Your task to perform on an android device: Go to Wikipedia Image 0: 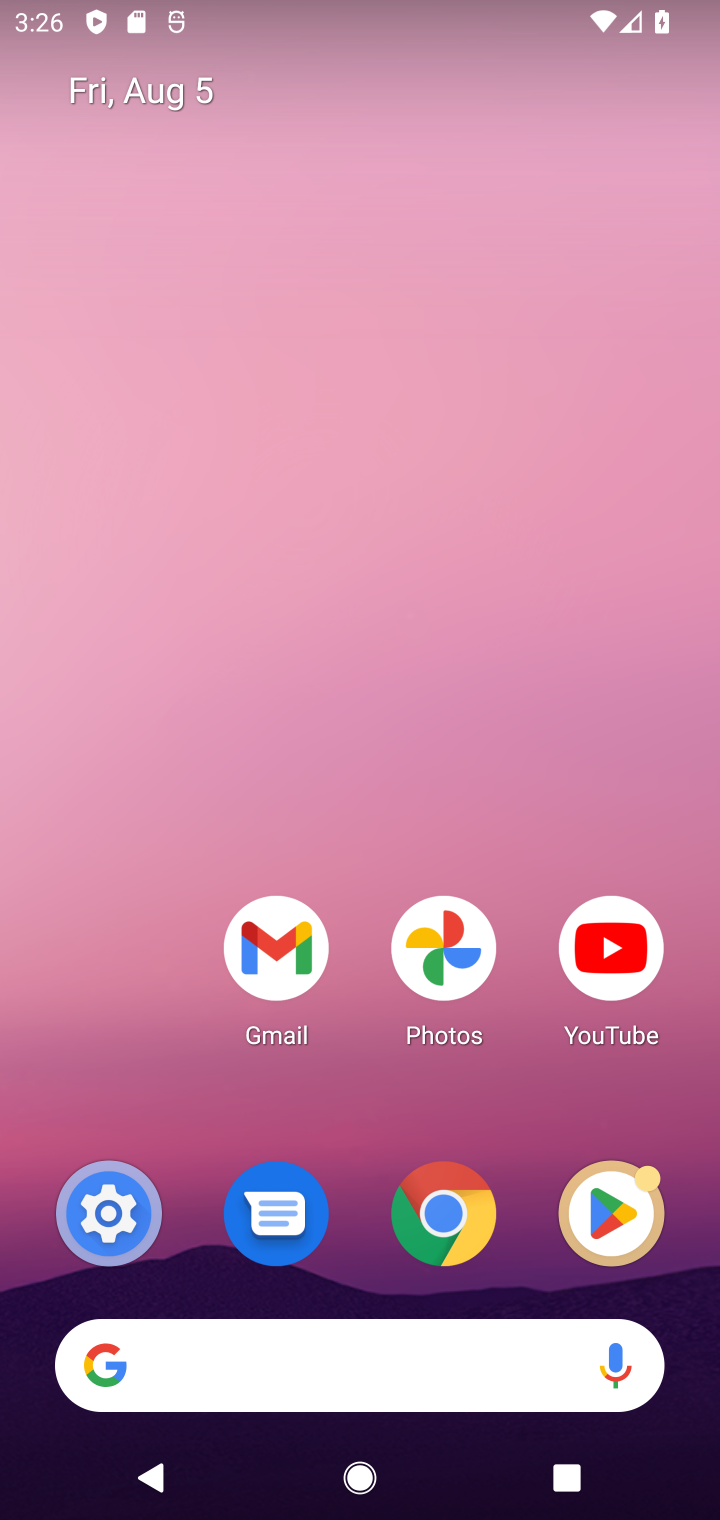
Step 0: click (77, 101)
Your task to perform on an android device: Go to Wikipedia Image 1: 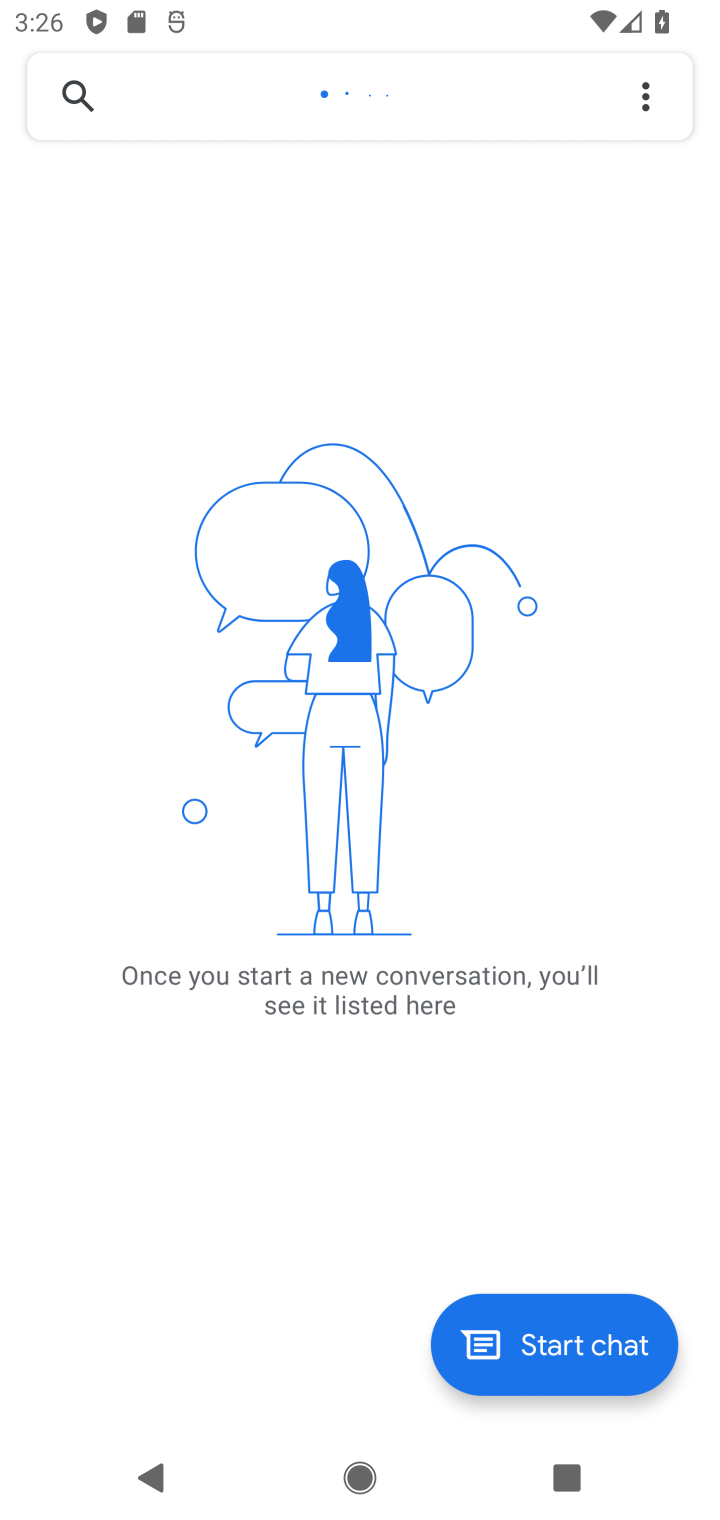
Step 1: press back button
Your task to perform on an android device: Go to Wikipedia Image 2: 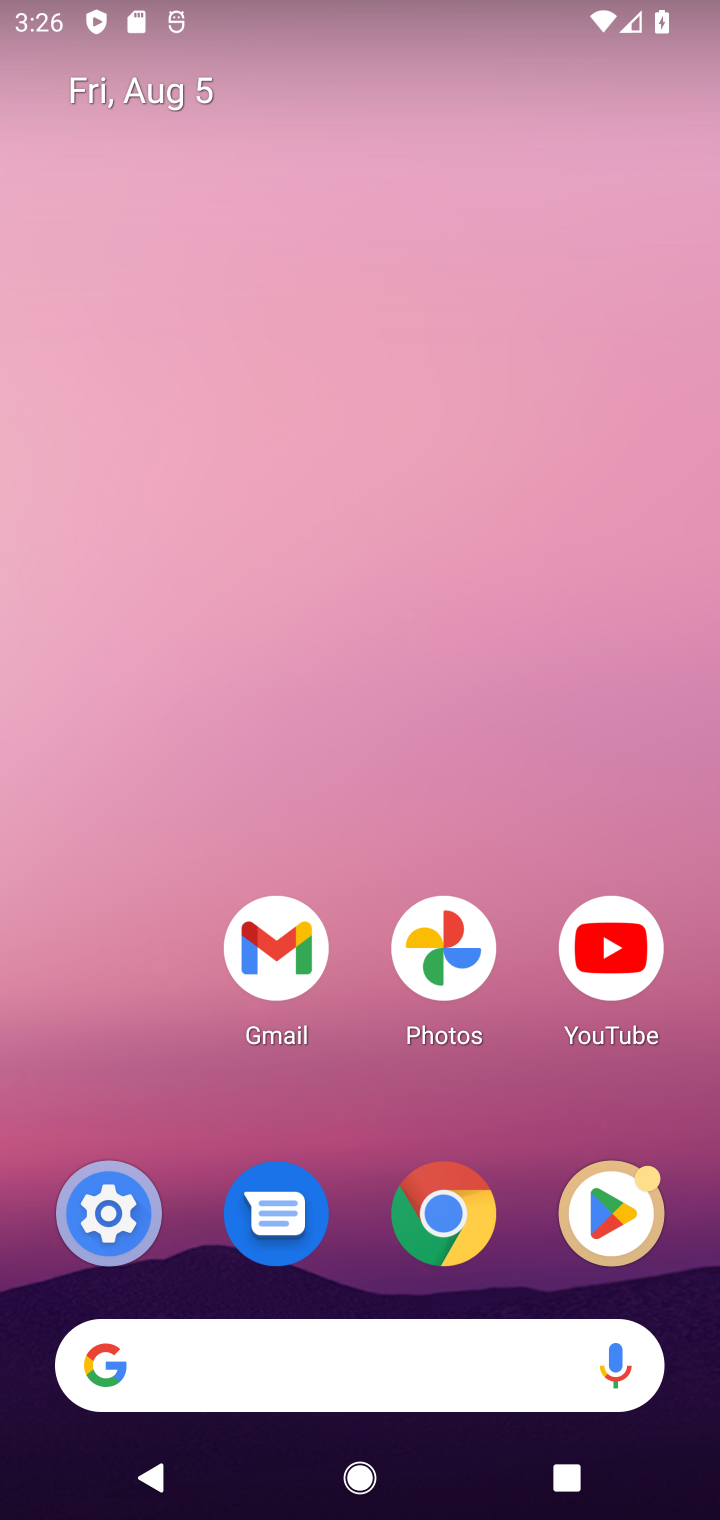
Step 2: drag from (411, 1293) to (429, 77)
Your task to perform on an android device: Go to Wikipedia Image 3: 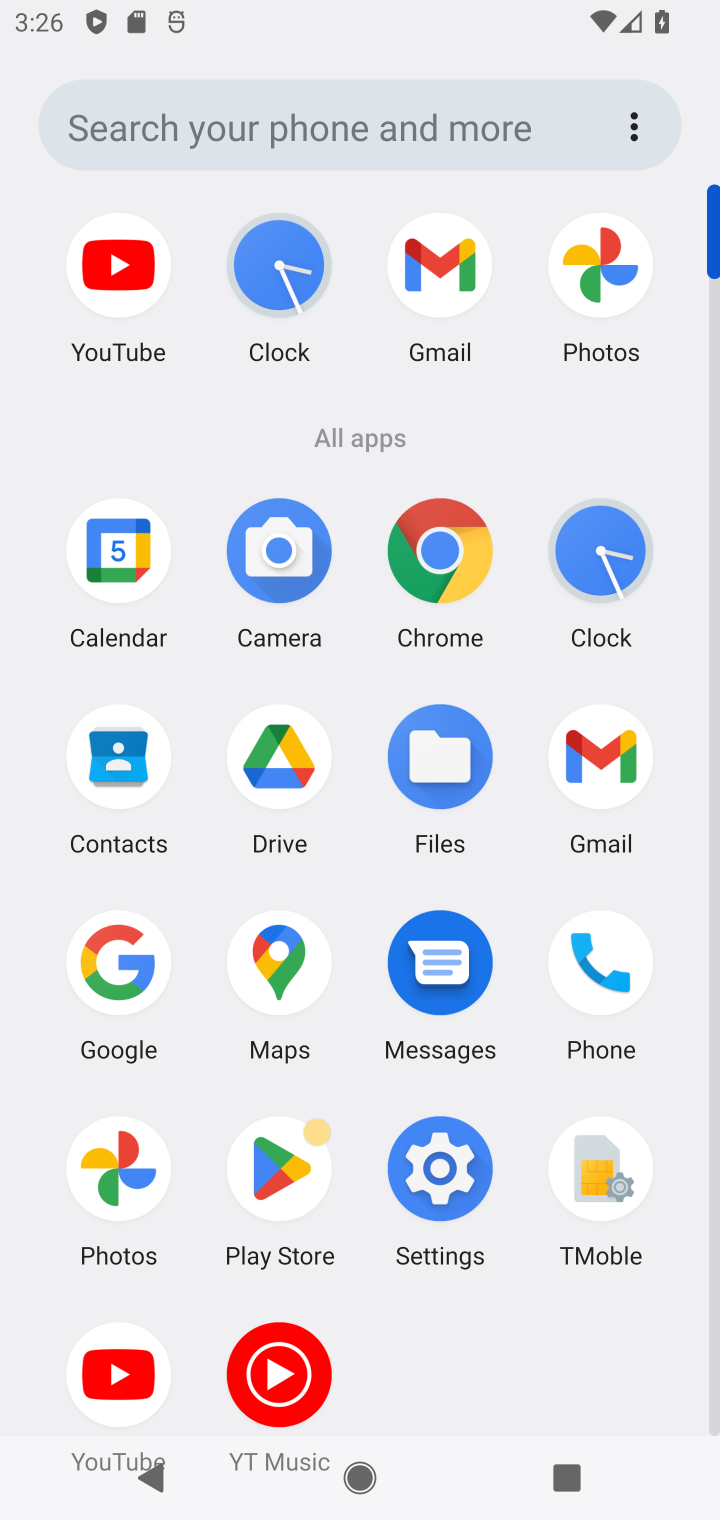
Step 3: click (462, 560)
Your task to perform on an android device: Go to Wikipedia Image 4: 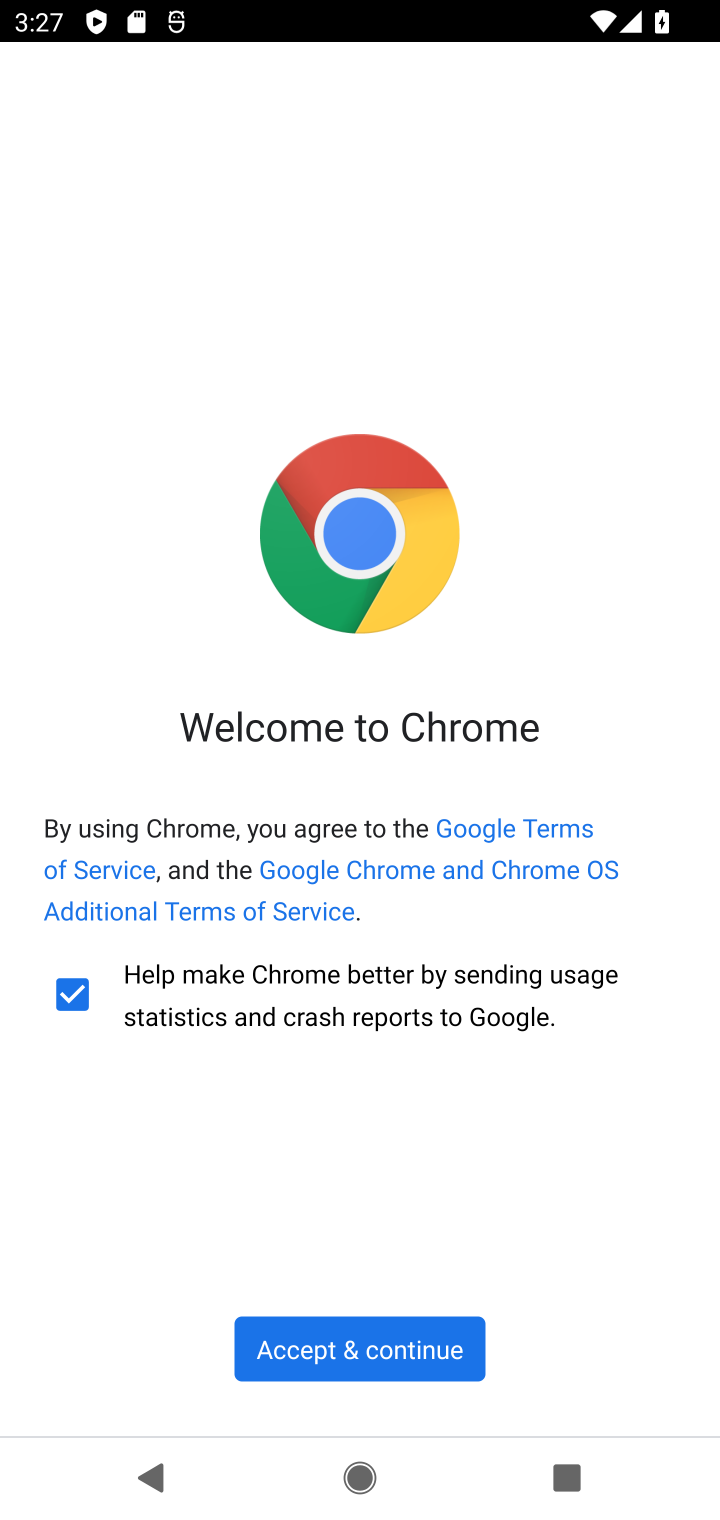
Step 4: click (361, 1343)
Your task to perform on an android device: Go to Wikipedia Image 5: 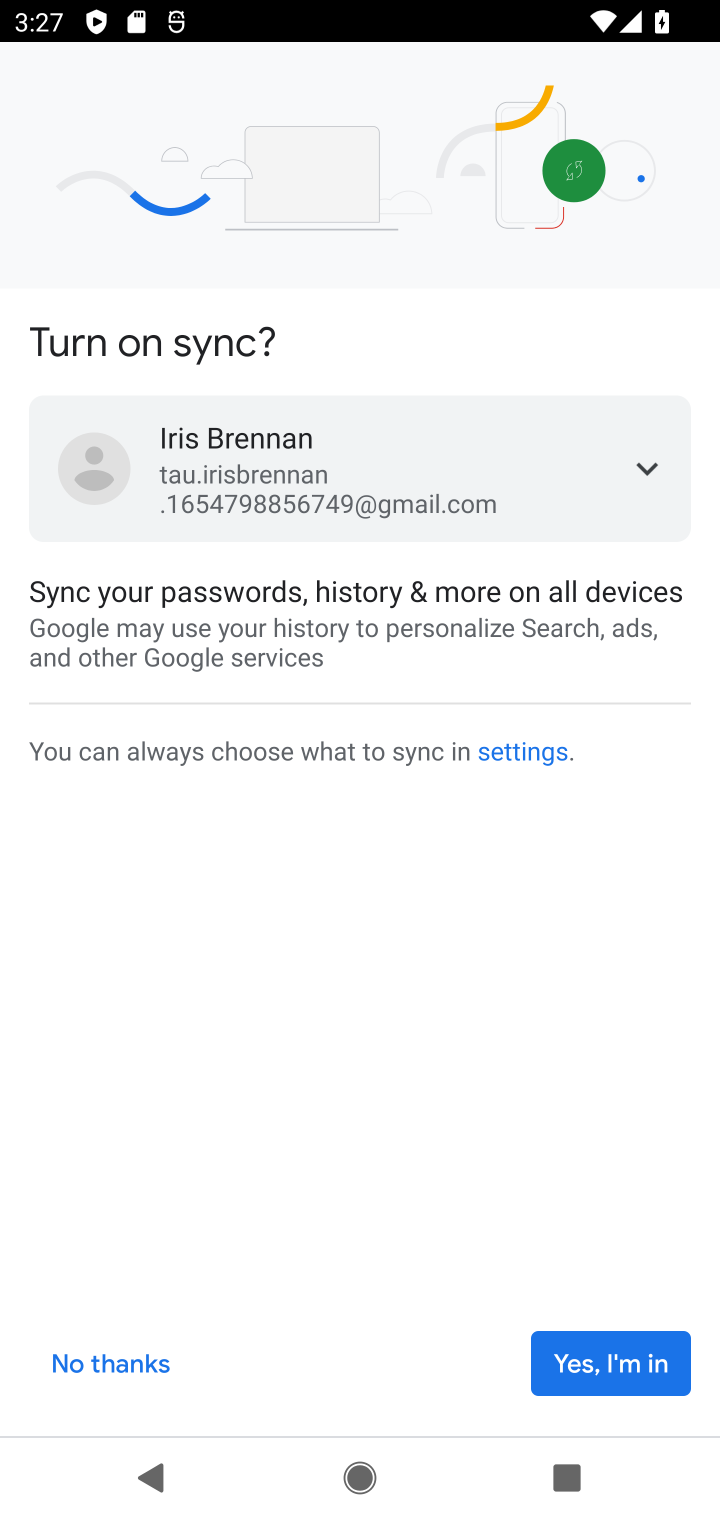
Step 5: click (578, 1384)
Your task to perform on an android device: Go to Wikipedia Image 6: 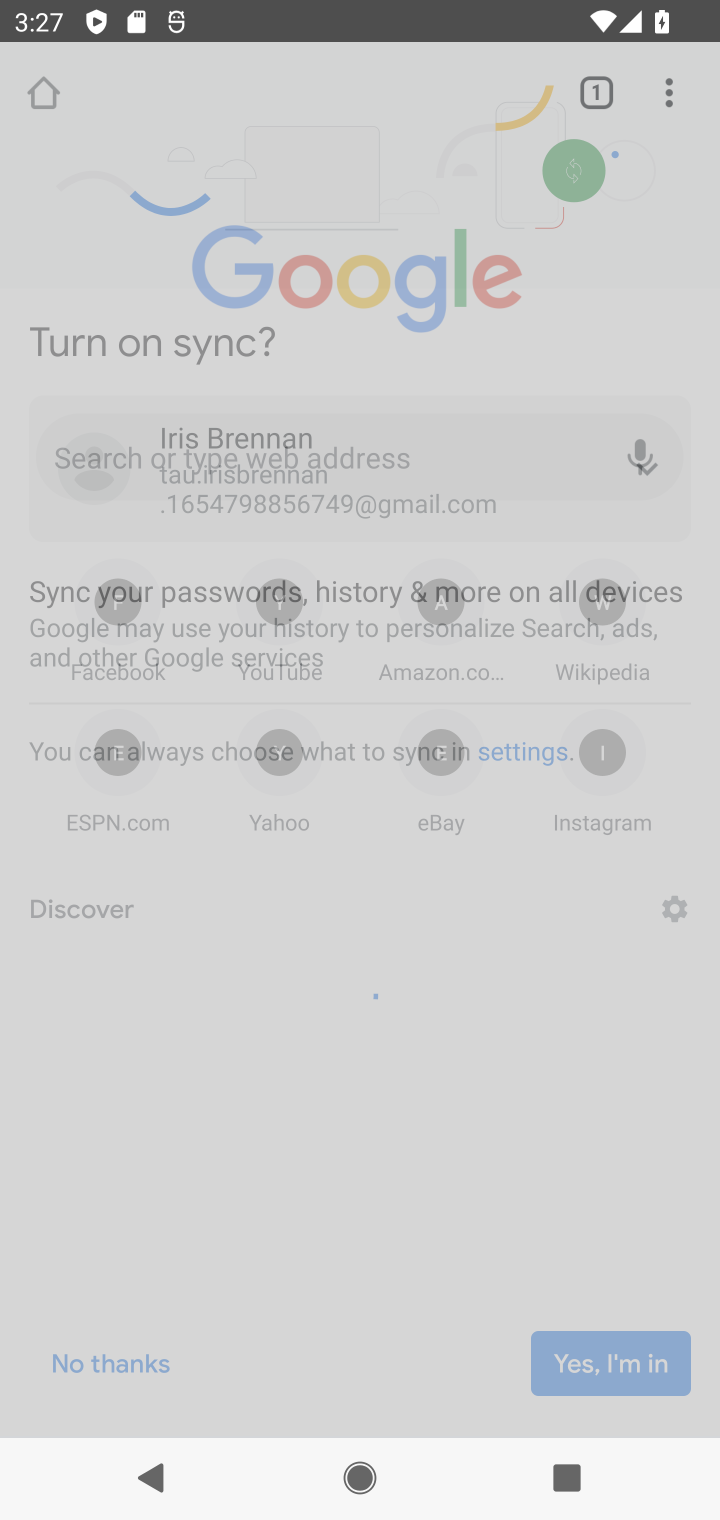
Step 6: click (588, 1372)
Your task to perform on an android device: Go to Wikipedia Image 7: 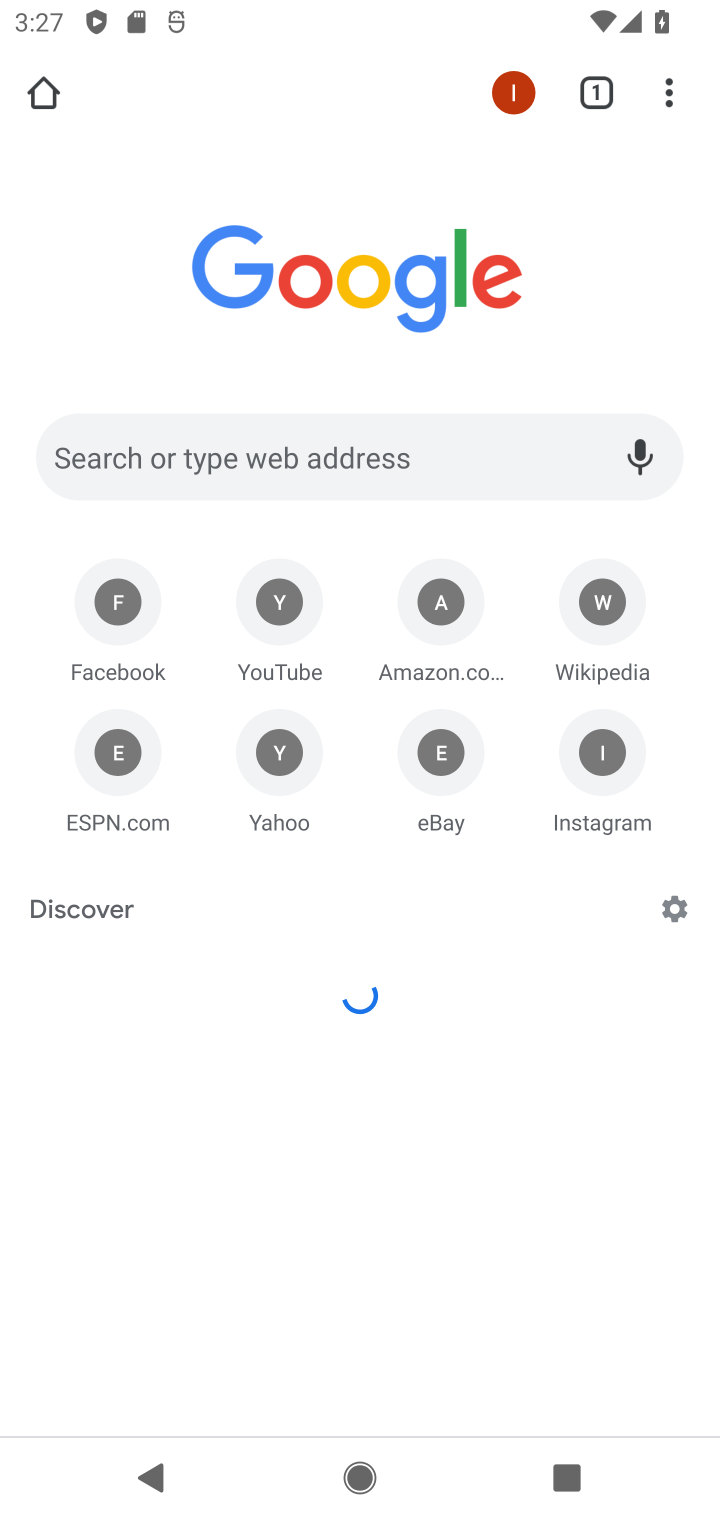
Step 7: click (613, 626)
Your task to perform on an android device: Go to Wikipedia Image 8: 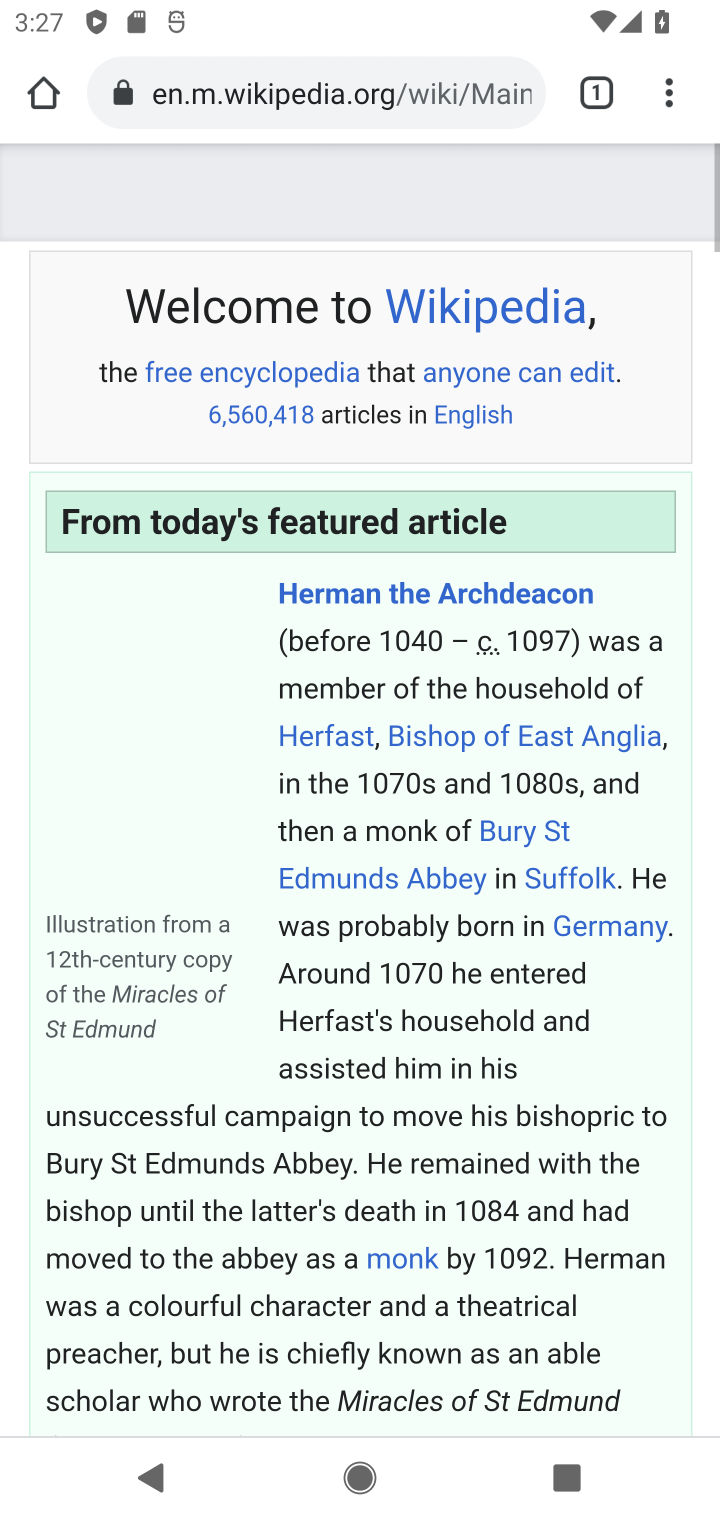
Step 8: task complete